Your task to perform on an android device: Open Reddit.com Image 0: 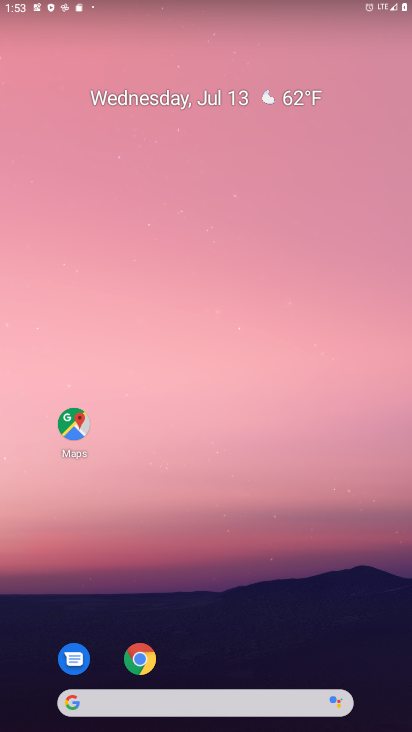
Step 0: drag from (194, 723) to (239, 240)
Your task to perform on an android device: Open Reddit.com Image 1: 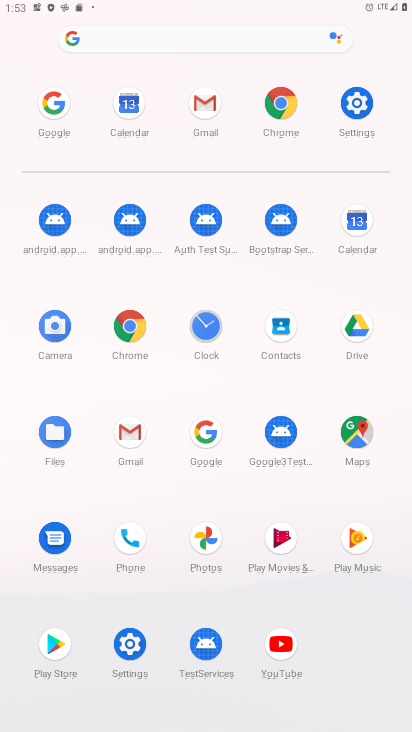
Step 1: click (125, 326)
Your task to perform on an android device: Open Reddit.com Image 2: 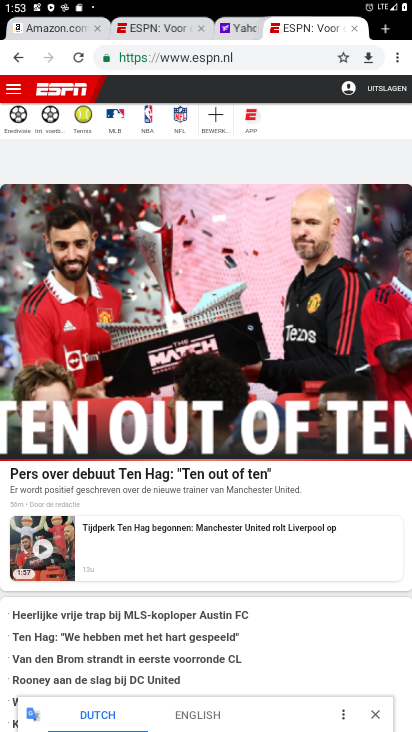
Step 2: click (398, 63)
Your task to perform on an android device: Open Reddit.com Image 3: 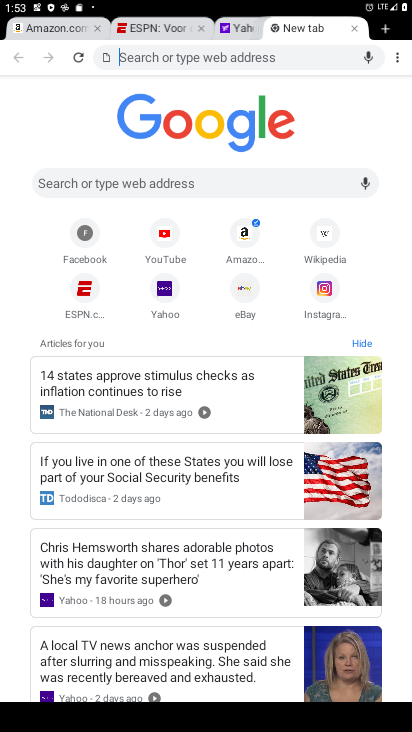
Step 3: click (234, 180)
Your task to perform on an android device: Open Reddit.com Image 4: 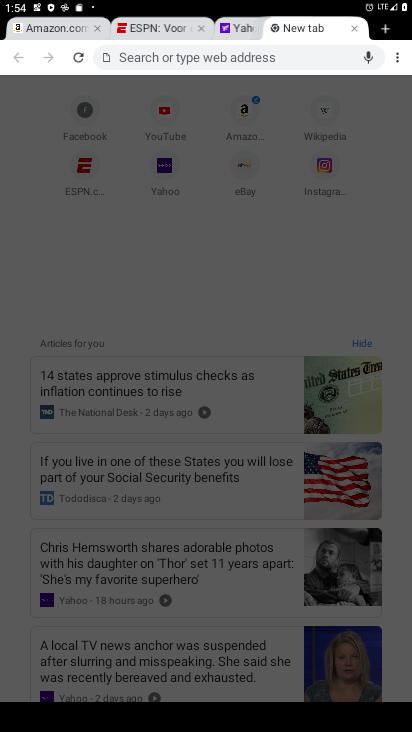
Step 4: type "Reddit.com"
Your task to perform on an android device: Open Reddit.com Image 5: 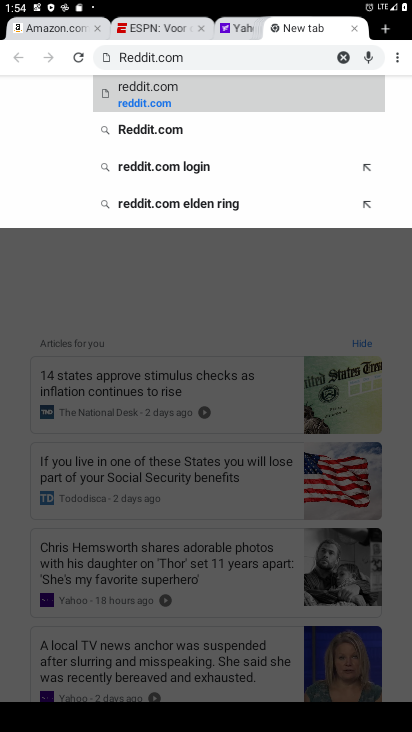
Step 5: click (149, 98)
Your task to perform on an android device: Open Reddit.com Image 6: 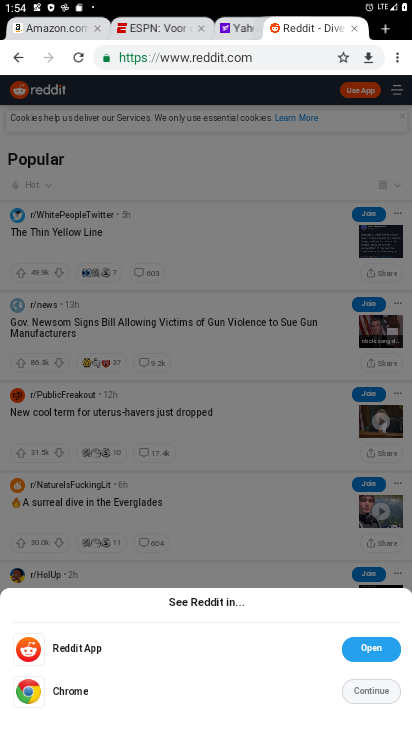
Step 6: task complete